Your task to perform on an android device: Show me productivity apps on the Play Store Image 0: 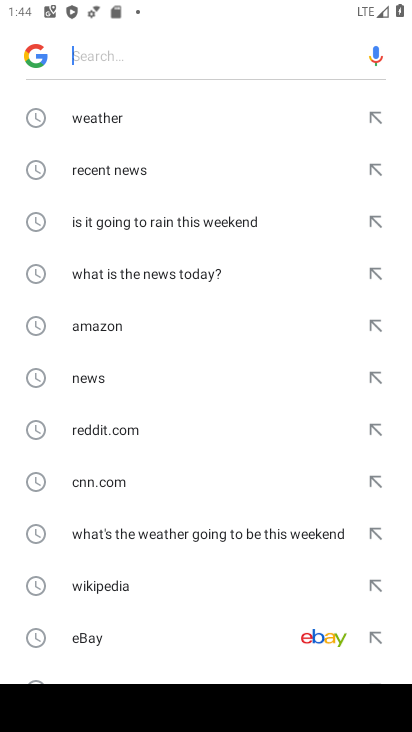
Step 0: press home button
Your task to perform on an android device: Show me productivity apps on the Play Store Image 1: 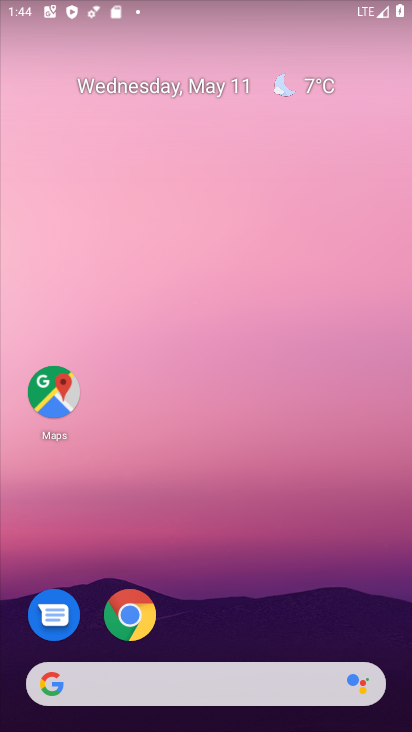
Step 1: drag from (257, 556) to (208, 59)
Your task to perform on an android device: Show me productivity apps on the Play Store Image 2: 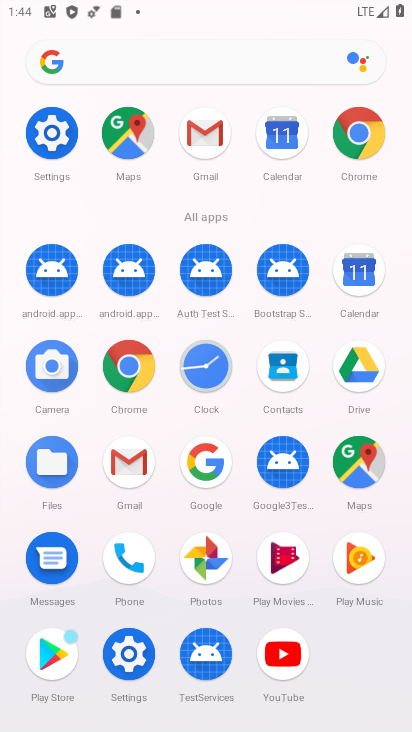
Step 2: click (53, 652)
Your task to perform on an android device: Show me productivity apps on the Play Store Image 3: 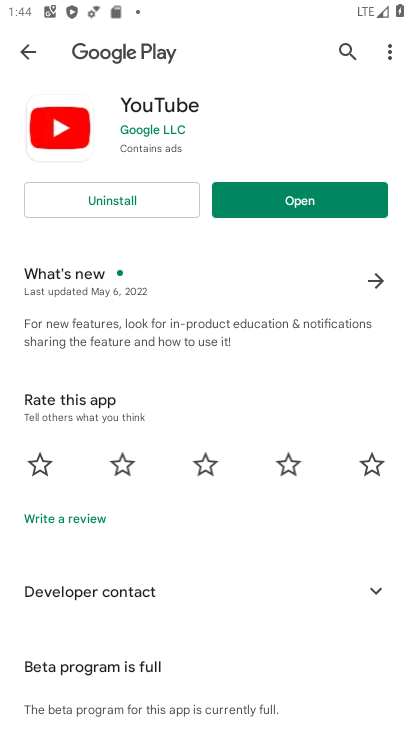
Step 3: click (23, 48)
Your task to perform on an android device: Show me productivity apps on the Play Store Image 4: 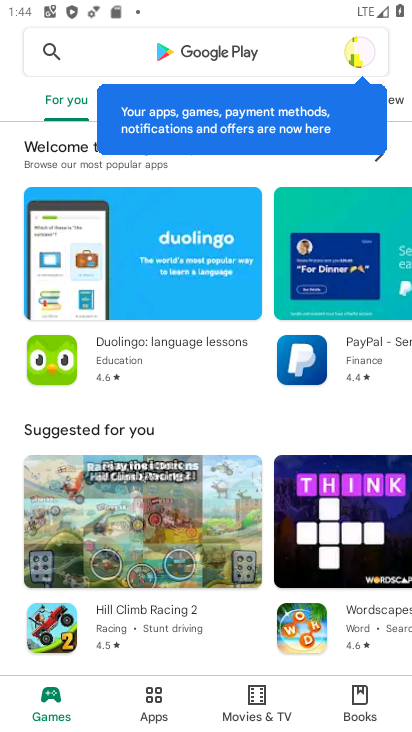
Step 4: click (171, 713)
Your task to perform on an android device: Show me productivity apps on the Play Store Image 5: 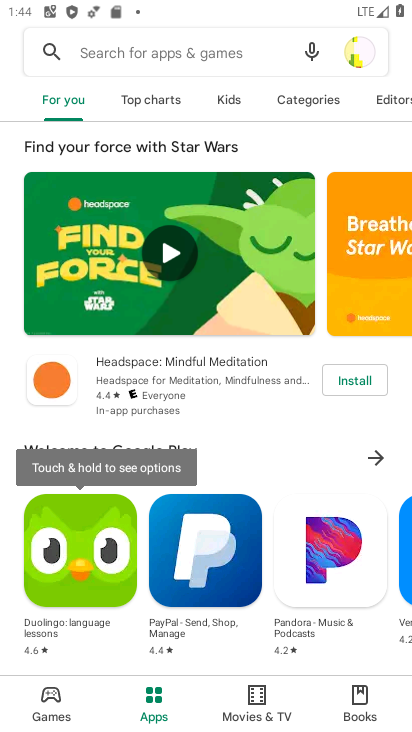
Step 5: task complete